Your task to perform on an android device: Show me the alarms in the clock app Image 0: 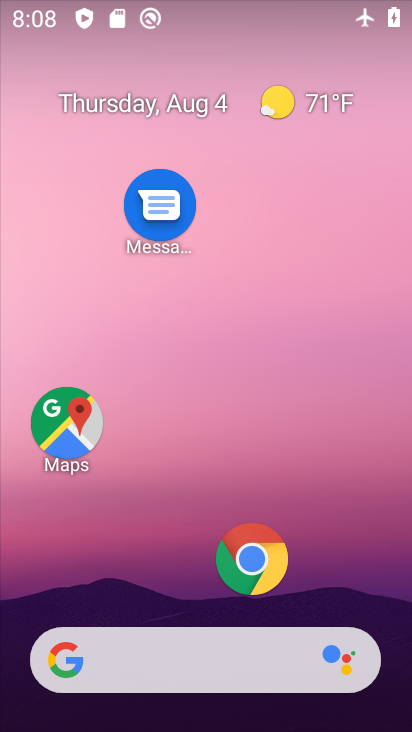
Step 0: drag from (220, 588) to (182, 84)
Your task to perform on an android device: Show me the alarms in the clock app Image 1: 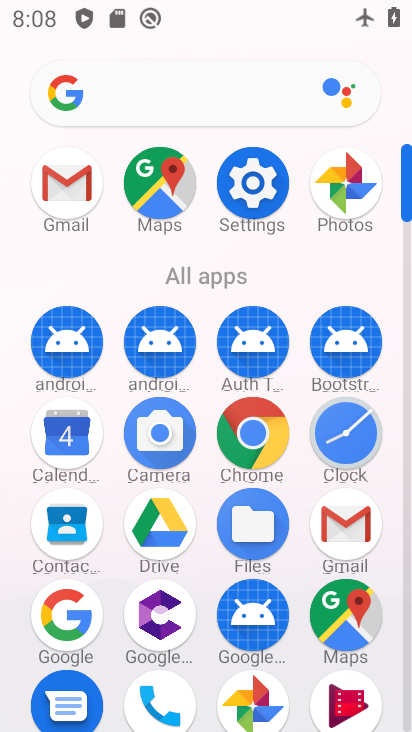
Step 1: click (341, 421)
Your task to perform on an android device: Show me the alarms in the clock app Image 2: 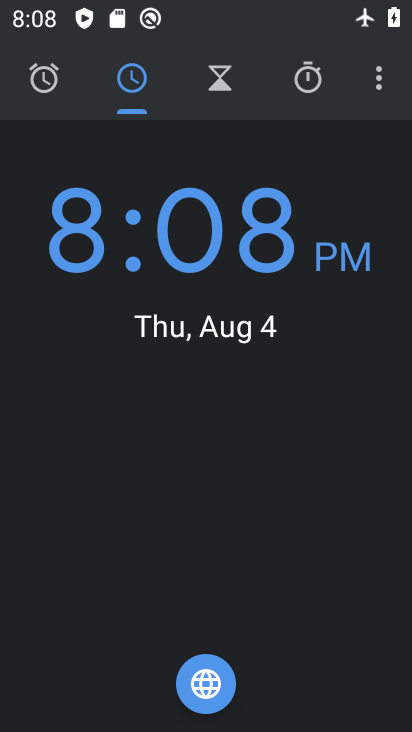
Step 2: click (44, 71)
Your task to perform on an android device: Show me the alarms in the clock app Image 3: 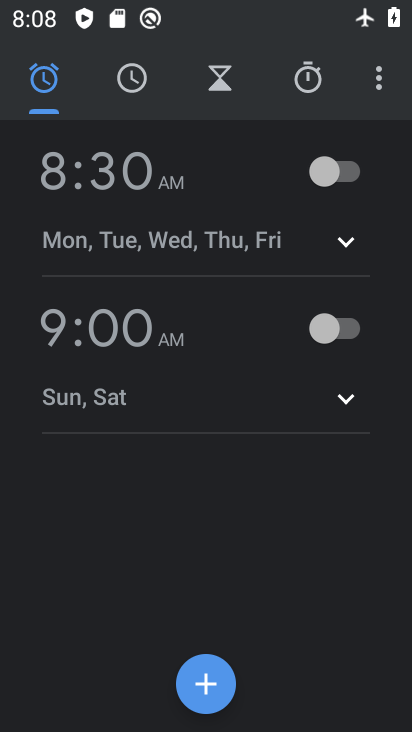
Step 3: task complete